Your task to perform on an android device: Open Chrome and go to settings Image 0: 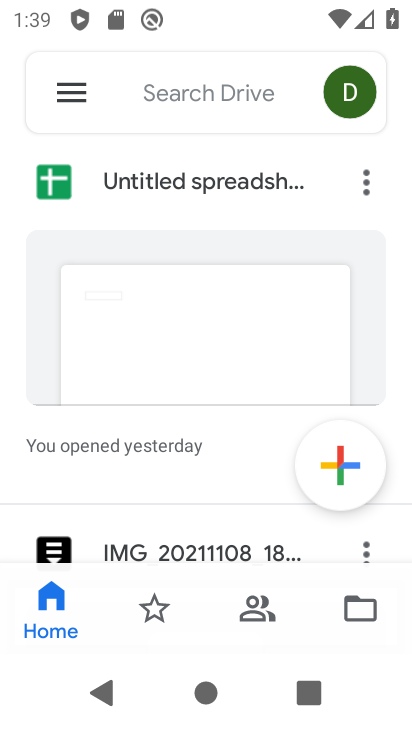
Step 0: press back button
Your task to perform on an android device: Open Chrome and go to settings Image 1: 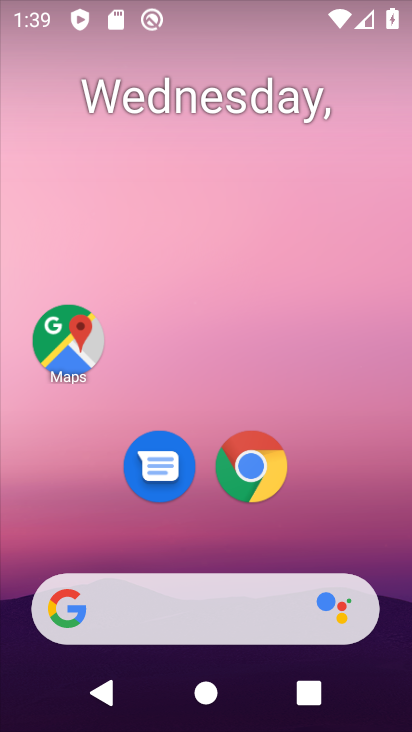
Step 1: drag from (361, 493) to (322, 9)
Your task to perform on an android device: Open Chrome and go to settings Image 2: 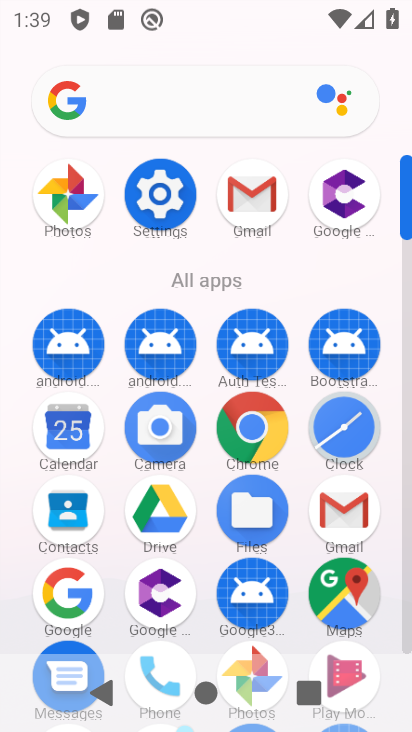
Step 2: drag from (4, 539) to (3, 197)
Your task to perform on an android device: Open Chrome and go to settings Image 3: 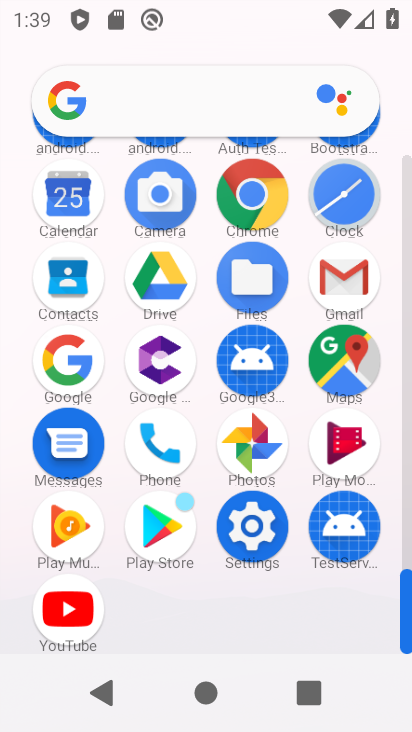
Step 3: click (256, 192)
Your task to perform on an android device: Open Chrome and go to settings Image 4: 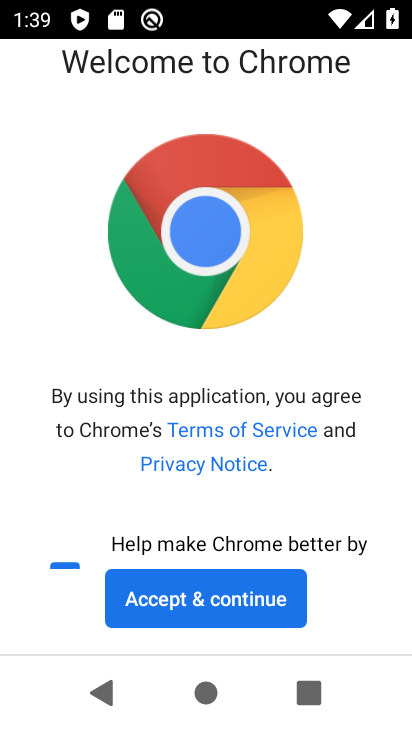
Step 4: click (212, 598)
Your task to perform on an android device: Open Chrome and go to settings Image 5: 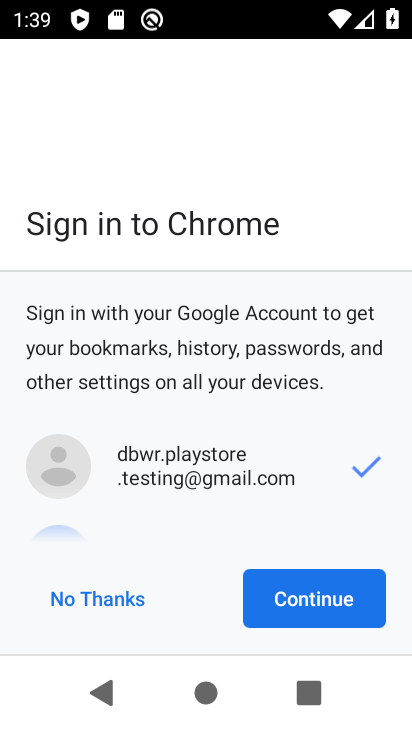
Step 5: click (319, 586)
Your task to perform on an android device: Open Chrome and go to settings Image 6: 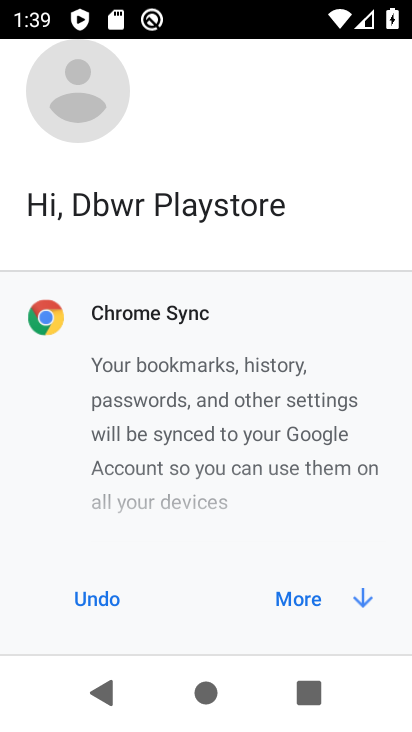
Step 6: click (300, 598)
Your task to perform on an android device: Open Chrome and go to settings Image 7: 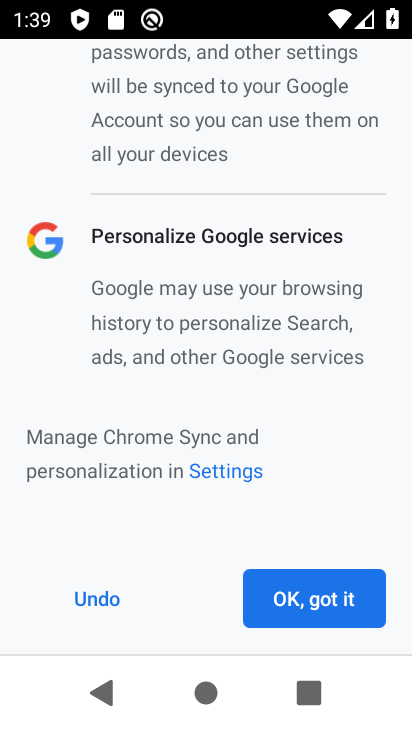
Step 7: click (300, 598)
Your task to perform on an android device: Open Chrome and go to settings Image 8: 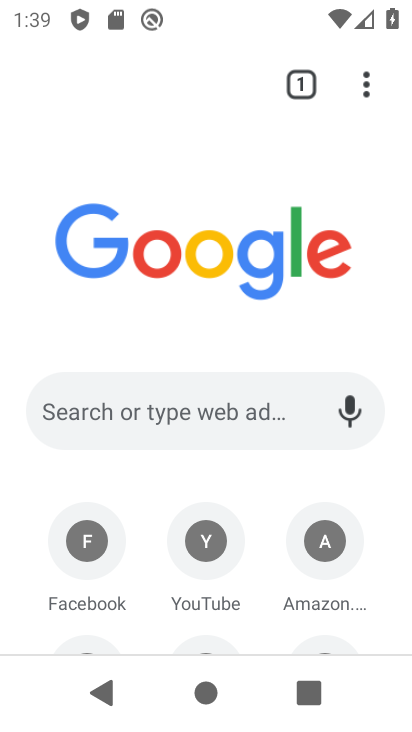
Step 8: task complete